Your task to perform on an android device: toggle priority inbox in the gmail app Image 0: 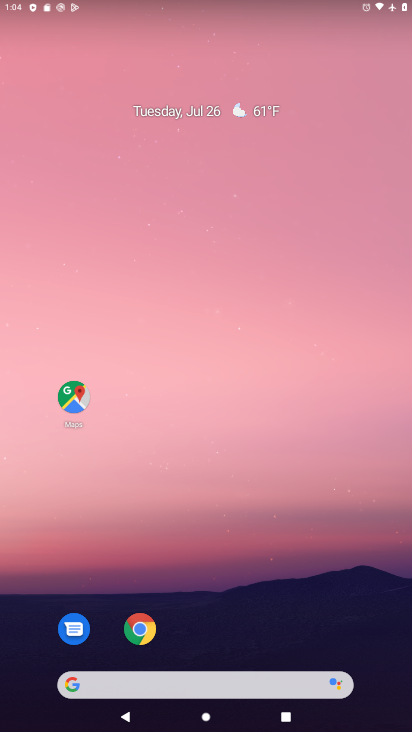
Step 0: click (389, 313)
Your task to perform on an android device: toggle priority inbox in the gmail app Image 1: 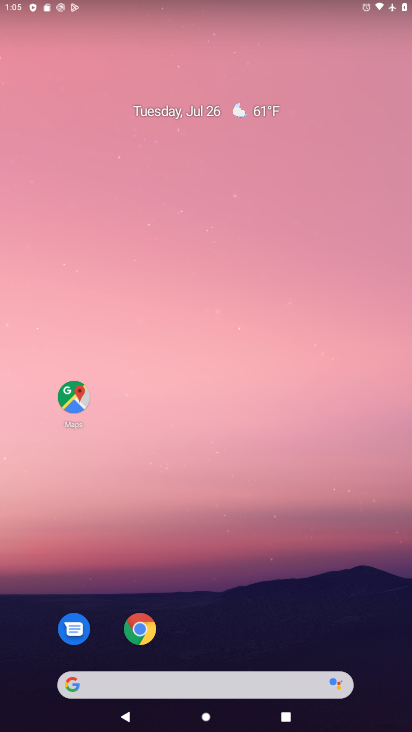
Step 1: drag from (239, 651) to (178, 118)
Your task to perform on an android device: toggle priority inbox in the gmail app Image 2: 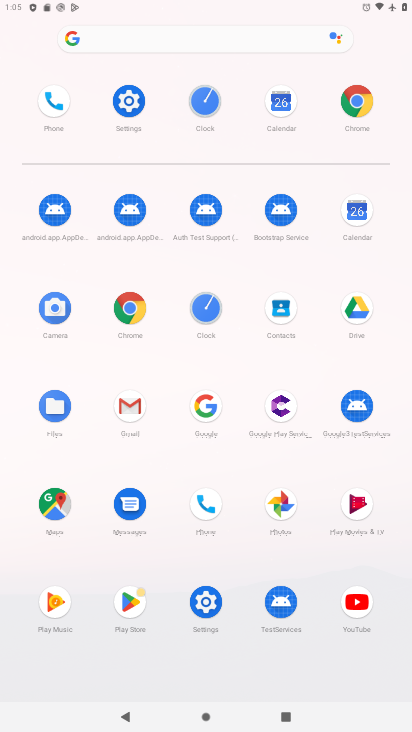
Step 2: click (140, 410)
Your task to perform on an android device: toggle priority inbox in the gmail app Image 3: 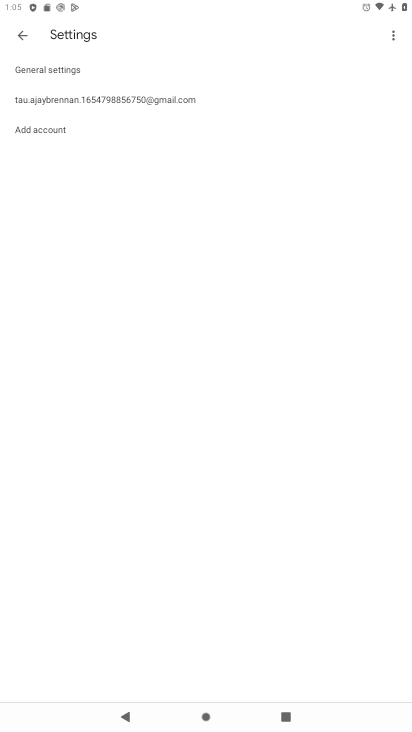
Step 3: click (72, 100)
Your task to perform on an android device: toggle priority inbox in the gmail app Image 4: 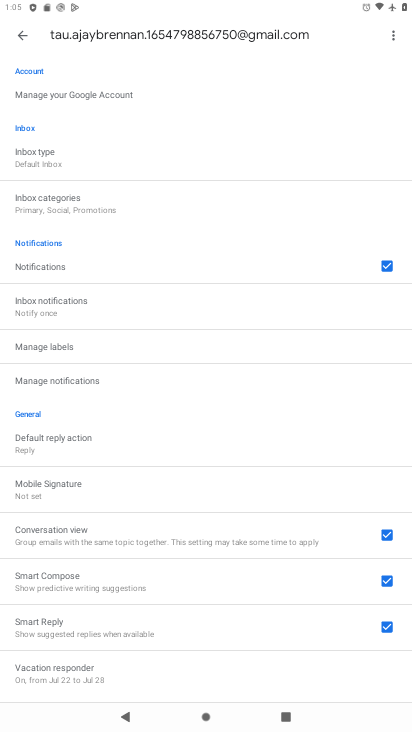
Step 4: click (28, 168)
Your task to perform on an android device: toggle priority inbox in the gmail app Image 5: 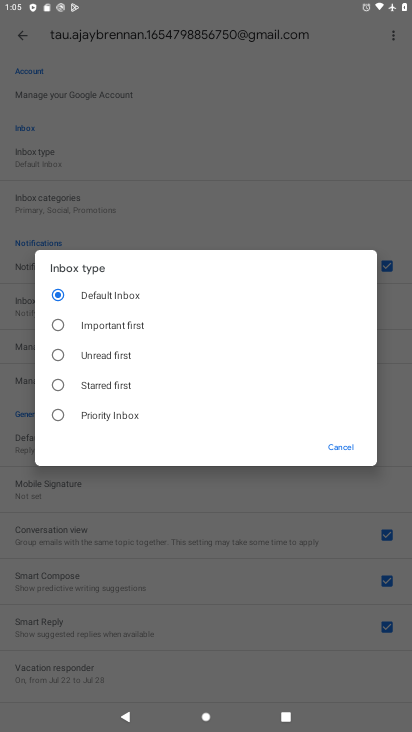
Step 5: click (128, 430)
Your task to perform on an android device: toggle priority inbox in the gmail app Image 6: 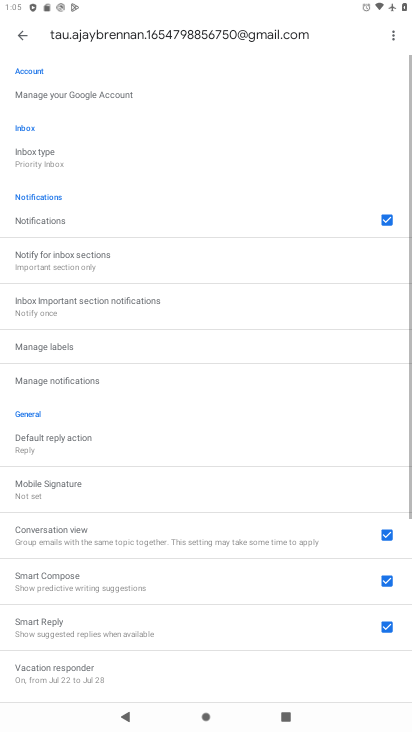
Step 6: task complete